Your task to perform on an android device: Open Reddit.com Image 0: 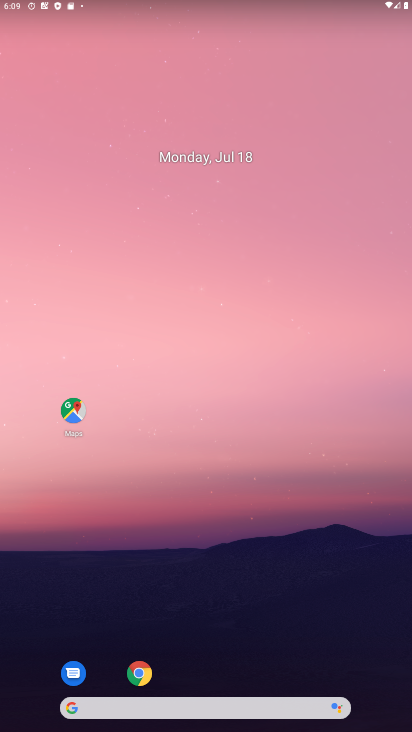
Step 0: click (217, 710)
Your task to perform on an android device: Open Reddit.com Image 1: 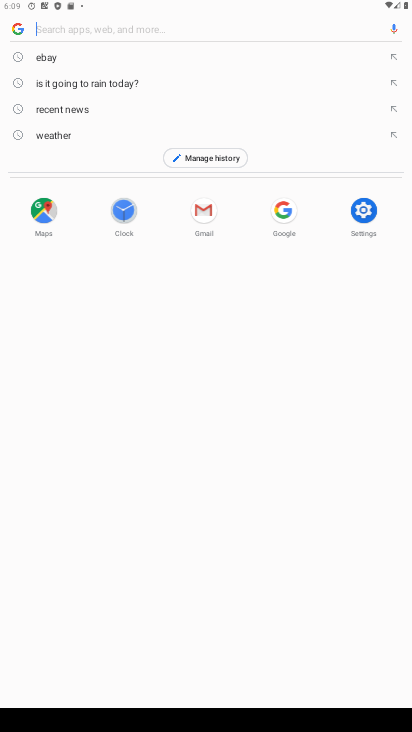
Step 1: type "Reddit.com"
Your task to perform on an android device: Open Reddit.com Image 2: 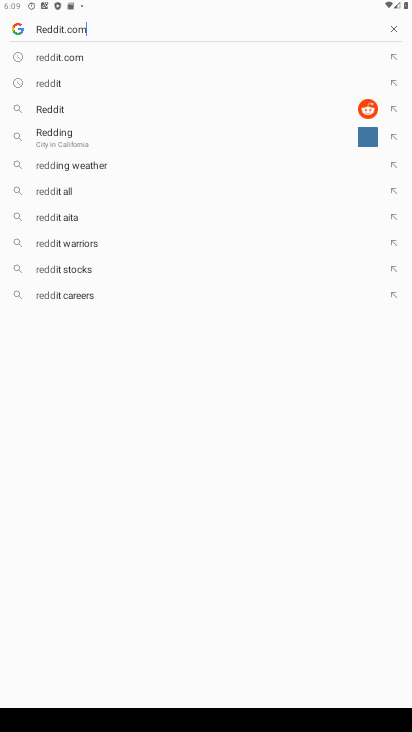
Step 2: press enter
Your task to perform on an android device: Open Reddit.com Image 3: 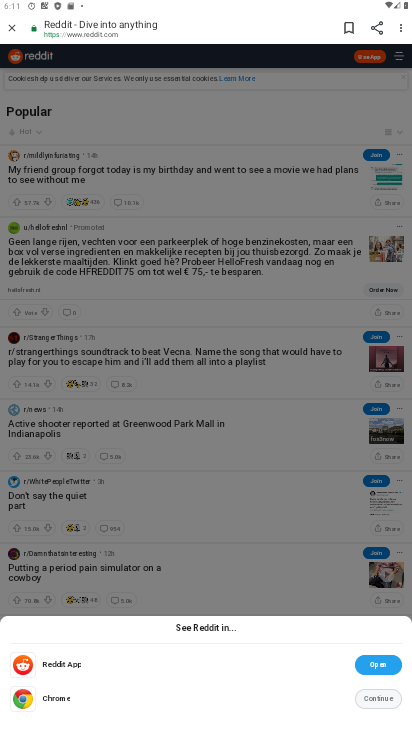
Step 3: task complete